Your task to perform on an android device: change your default location settings in chrome Image 0: 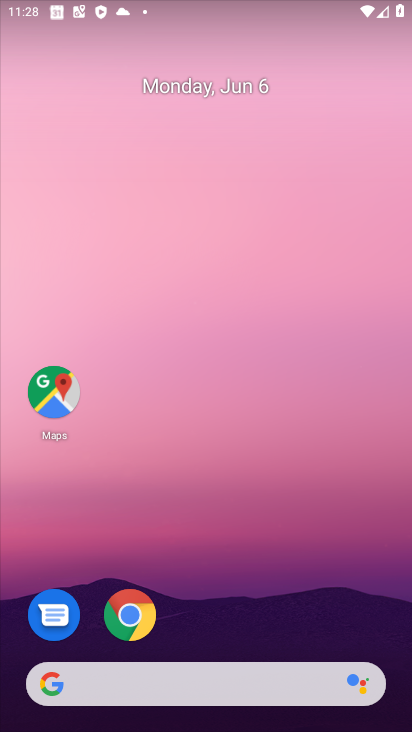
Step 0: click (128, 628)
Your task to perform on an android device: change your default location settings in chrome Image 1: 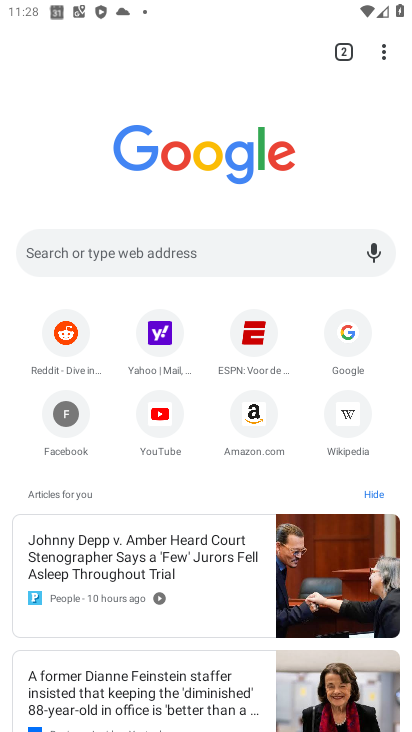
Step 1: task complete